Your task to perform on an android device: Go to Android settings Image 0: 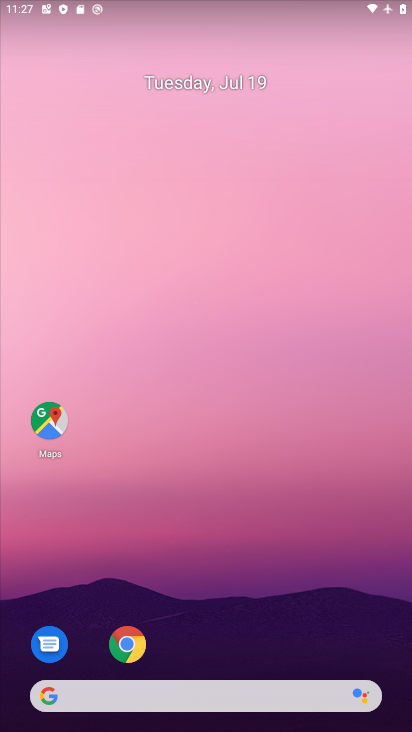
Step 0: drag from (12, 707) to (217, 92)
Your task to perform on an android device: Go to Android settings Image 1: 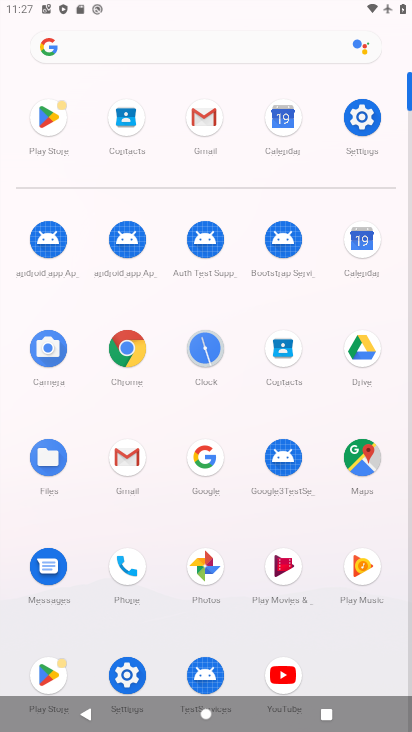
Step 1: click (111, 669)
Your task to perform on an android device: Go to Android settings Image 2: 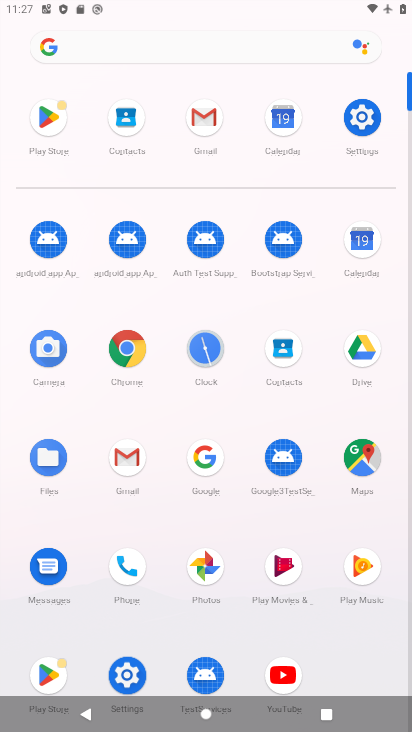
Step 2: click (115, 674)
Your task to perform on an android device: Go to Android settings Image 3: 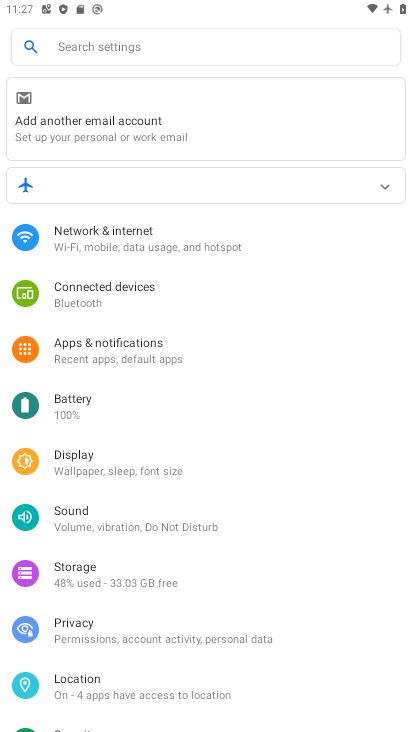
Step 3: drag from (213, 670) to (235, 205)
Your task to perform on an android device: Go to Android settings Image 4: 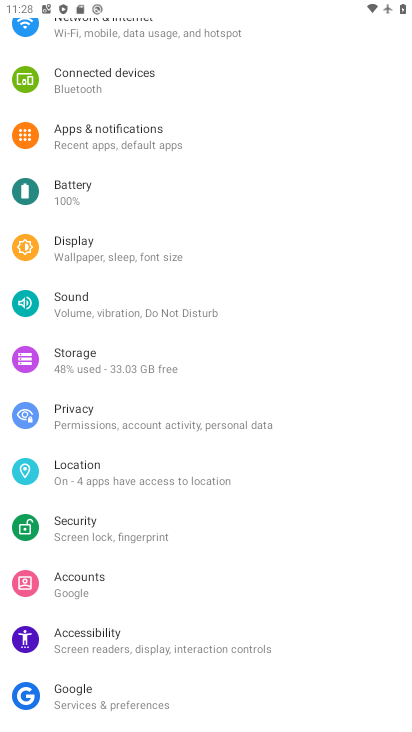
Step 4: drag from (128, 703) to (135, 156)
Your task to perform on an android device: Go to Android settings Image 5: 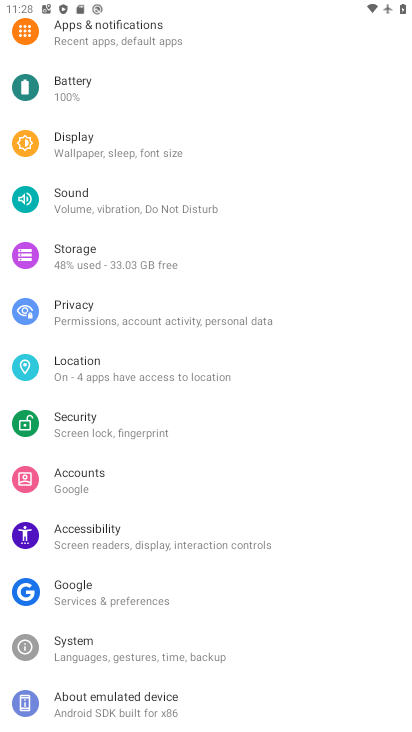
Step 5: click (161, 701)
Your task to perform on an android device: Go to Android settings Image 6: 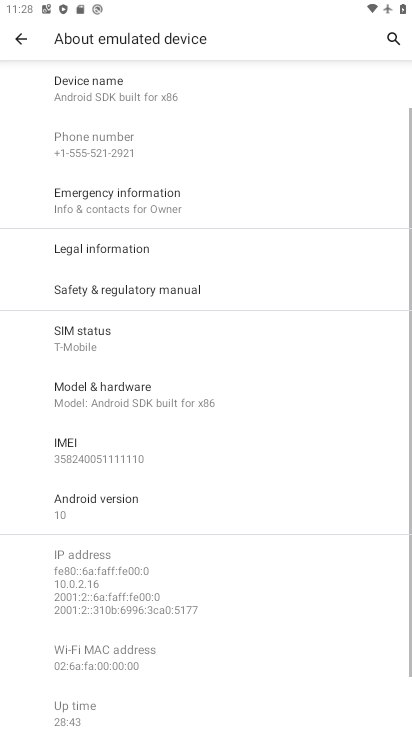
Step 6: drag from (227, 645) to (249, 326)
Your task to perform on an android device: Go to Android settings Image 7: 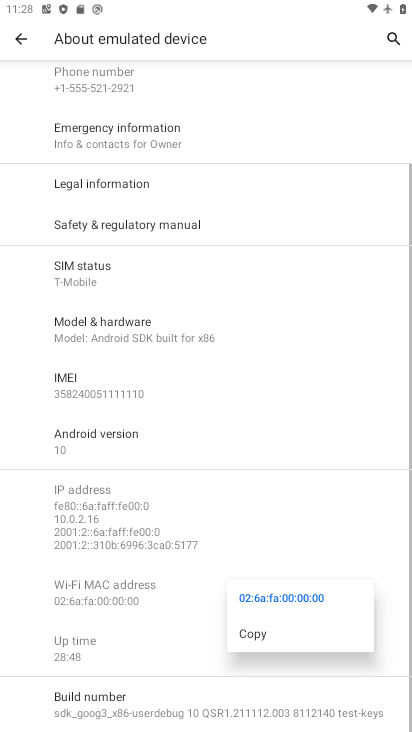
Step 7: click (67, 437)
Your task to perform on an android device: Go to Android settings Image 8: 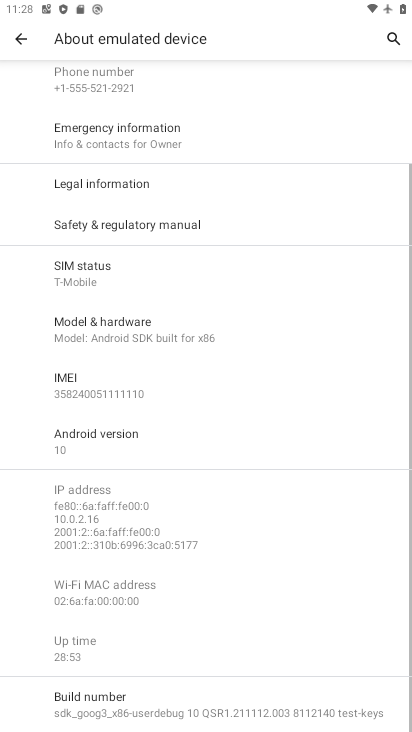
Step 8: click (104, 439)
Your task to perform on an android device: Go to Android settings Image 9: 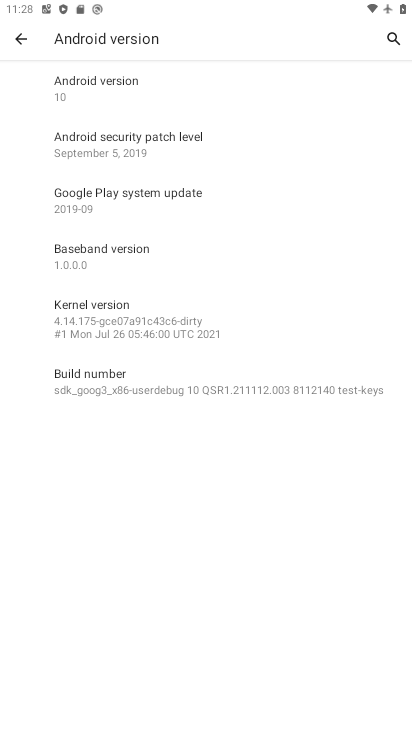
Step 9: task complete